Your task to perform on an android device: turn off airplane mode Image 0: 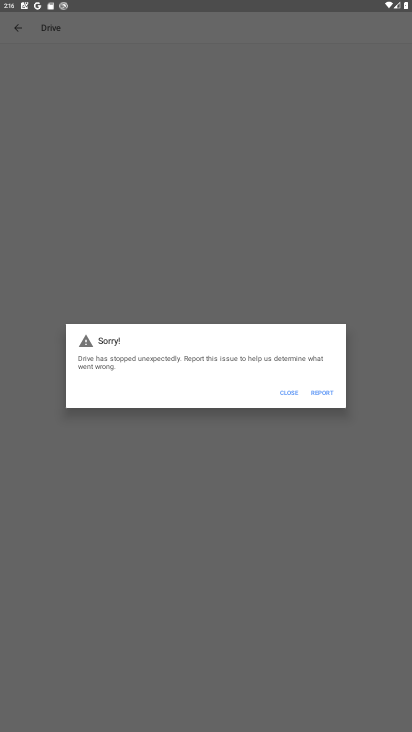
Step 0: press home button
Your task to perform on an android device: turn off airplane mode Image 1: 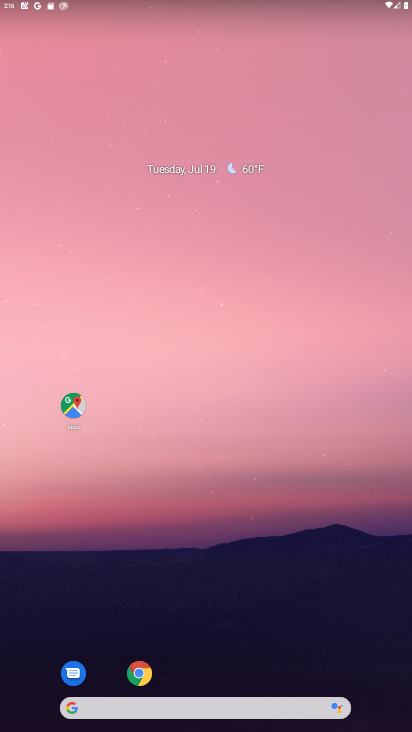
Step 1: drag from (132, 719) to (232, 259)
Your task to perform on an android device: turn off airplane mode Image 2: 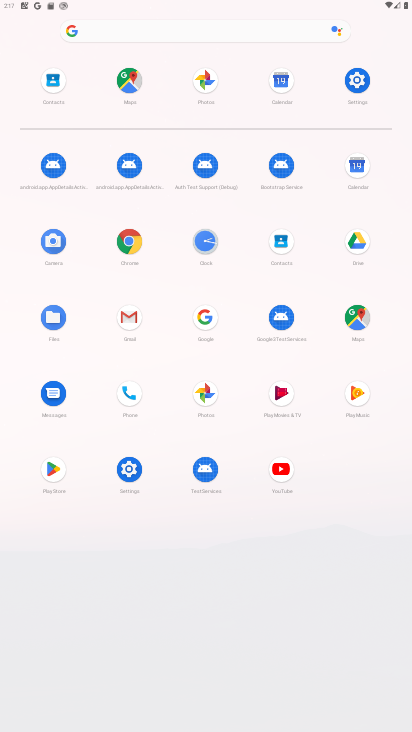
Step 2: click (359, 73)
Your task to perform on an android device: turn off airplane mode Image 3: 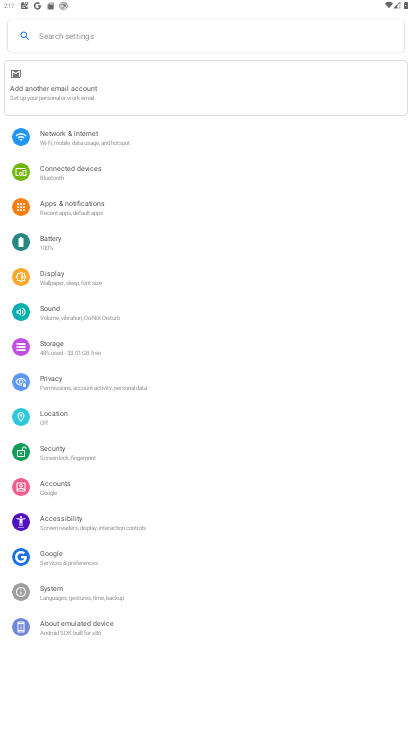
Step 3: click (112, 139)
Your task to perform on an android device: turn off airplane mode Image 4: 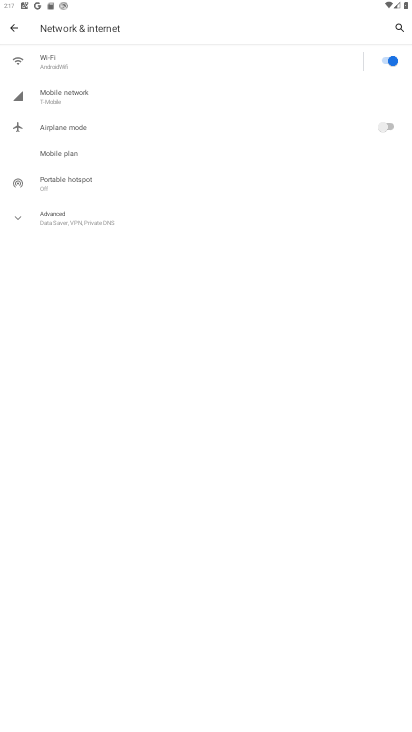
Step 4: task complete